Your task to perform on an android device: change text size in settings app Image 0: 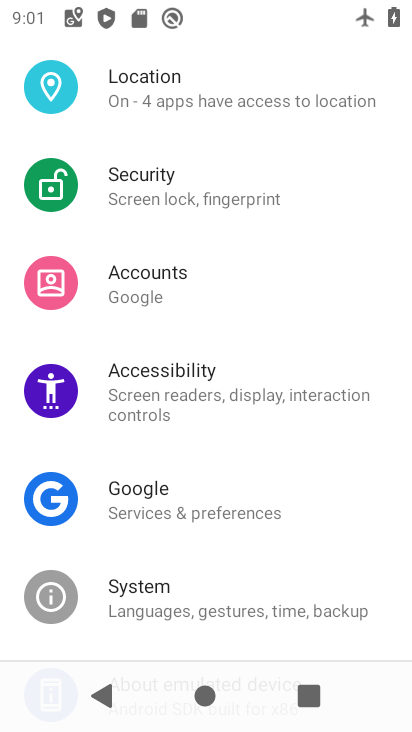
Step 0: press home button
Your task to perform on an android device: change text size in settings app Image 1: 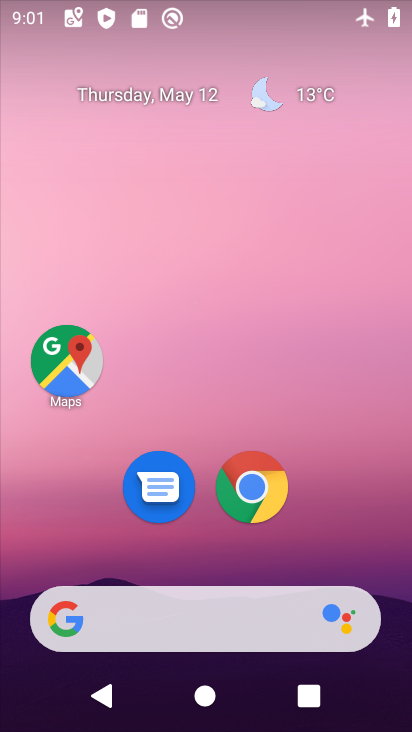
Step 1: drag from (344, 542) to (321, 9)
Your task to perform on an android device: change text size in settings app Image 2: 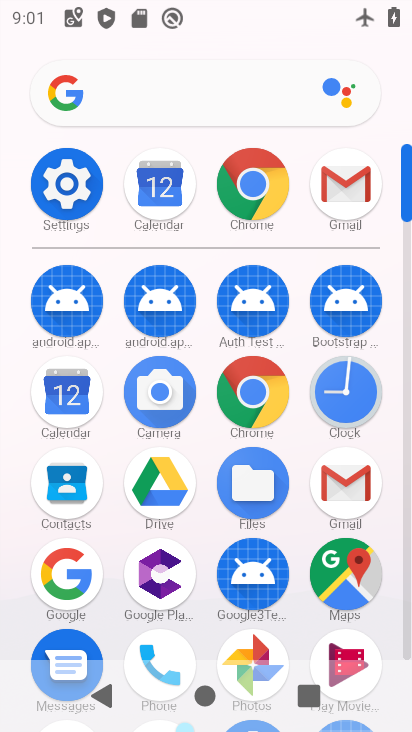
Step 2: click (54, 187)
Your task to perform on an android device: change text size in settings app Image 3: 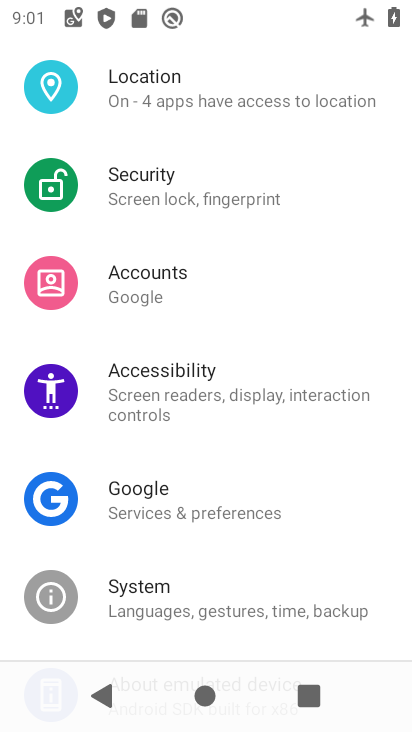
Step 3: click (169, 403)
Your task to perform on an android device: change text size in settings app Image 4: 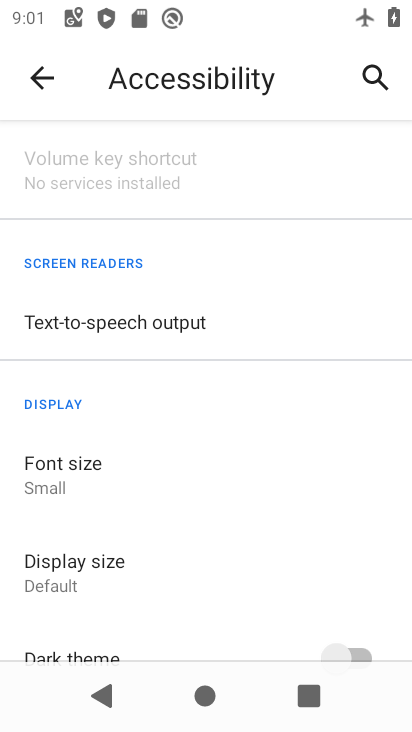
Step 4: click (50, 472)
Your task to perform on an android device: change text size in settings app Image 5: 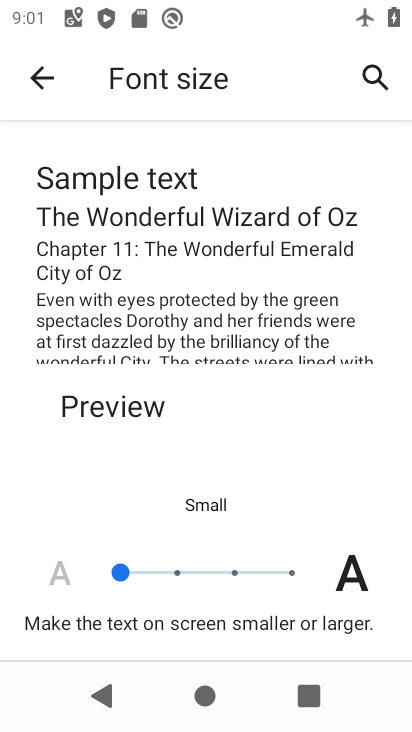
Step 5: click (179, 569)
Your task to perform on an android device: change text size in settings app Image 6: 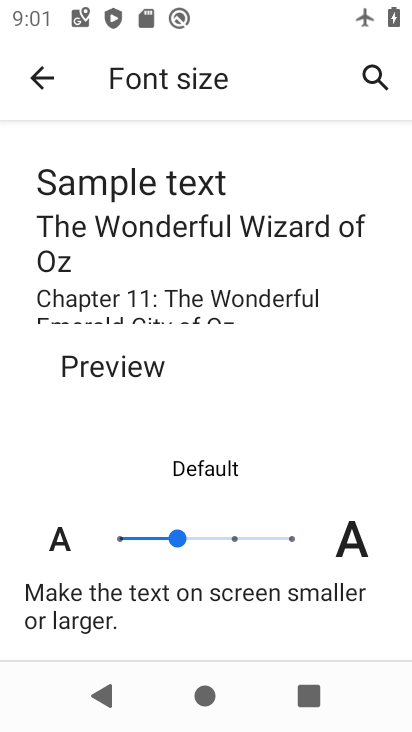
Step 6: task complete